Your task to perform on an android device: change notifications settings Image 0: 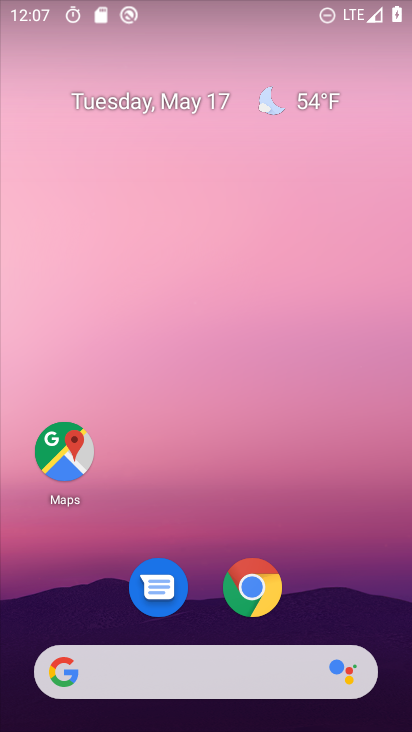
Step 0: click (232, 40)
Your task to perform on an android device: change notifications settings Image 1: 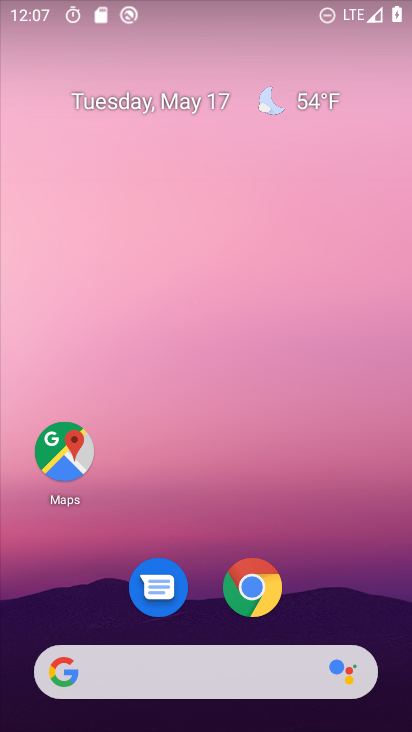
Step 1: drag from (188, 597) to (243, 178)
Your task to perform on an android device: change notifications settings Image 2: 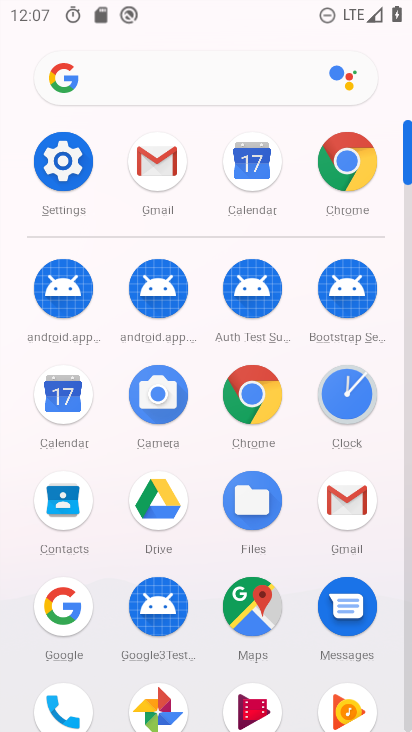
Step 2: click (59, 150)
Your task to perform on an android device: change notifications settings Image 3: 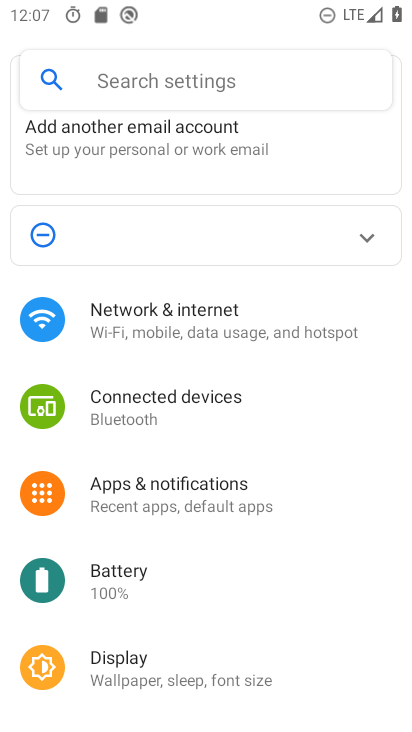
Step 3: click (170, 498)
Your task to perform on an android device: change notifications settings Image 4: 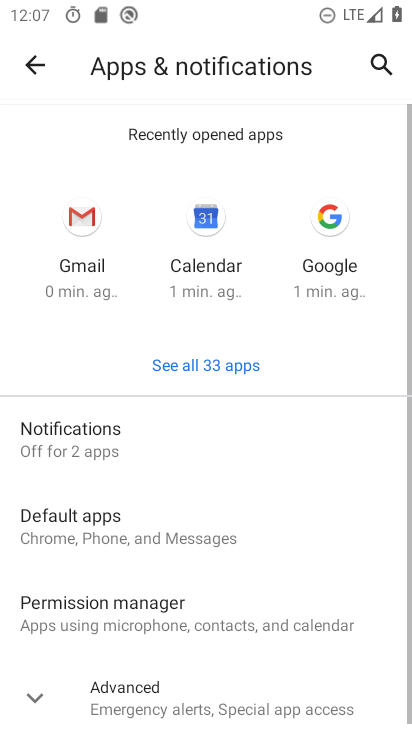
Step 4: click (106, 431)
Your task to perform on an android device: change notifications settings Image 5: 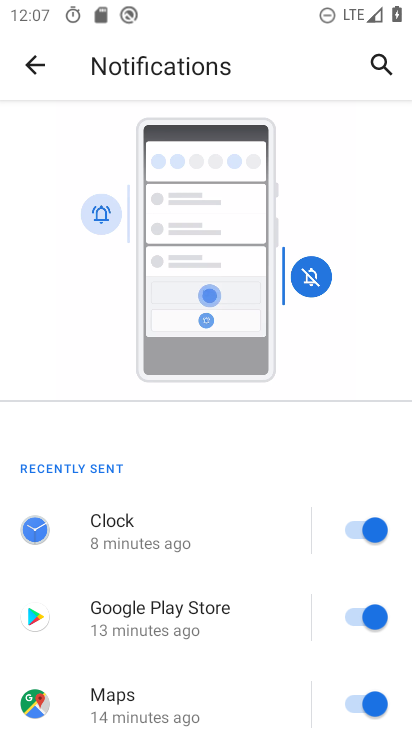
Step 5: click (348, 617)
Your task to perform on an android device: change notifications settings Image 6: 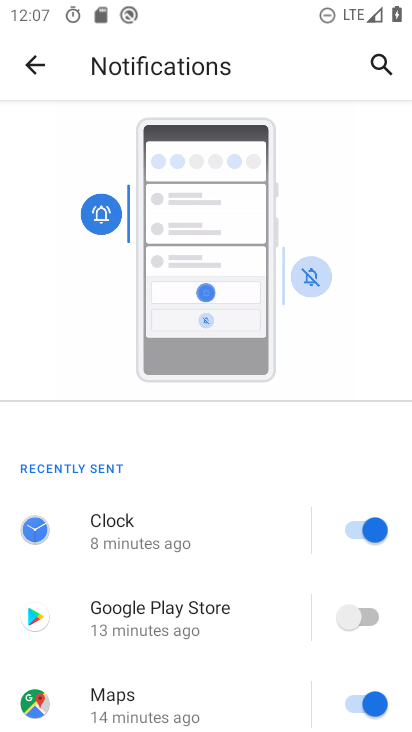
Step 6: task complete